Your task to perform on an android device: turn on showing notifications on the lock screen Image 0: 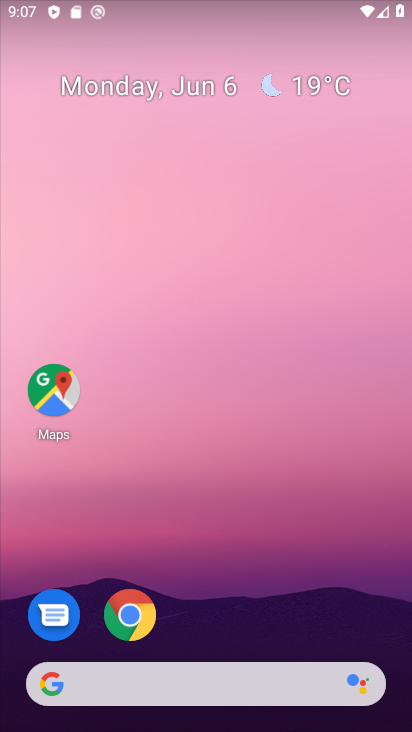
Step 0: drag from (290, 614) to (229, 267)
Your task to perform on an android device: turn on showing notifications on the lock screen Image 1: 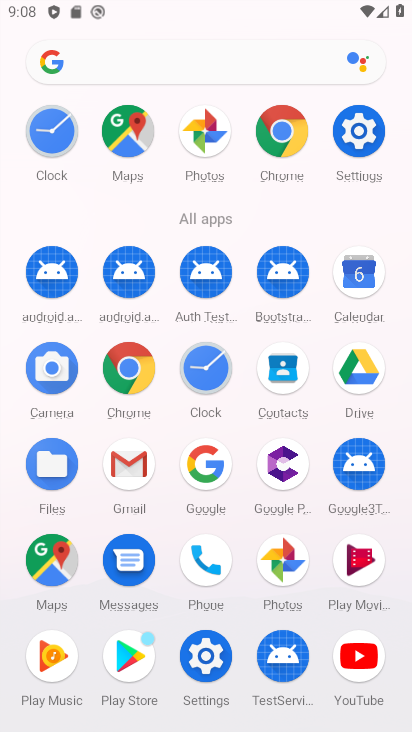
Step 1: click (354, 152)
Your task to perform on an android device: turn on showing notifications on the lock screen Image 2: 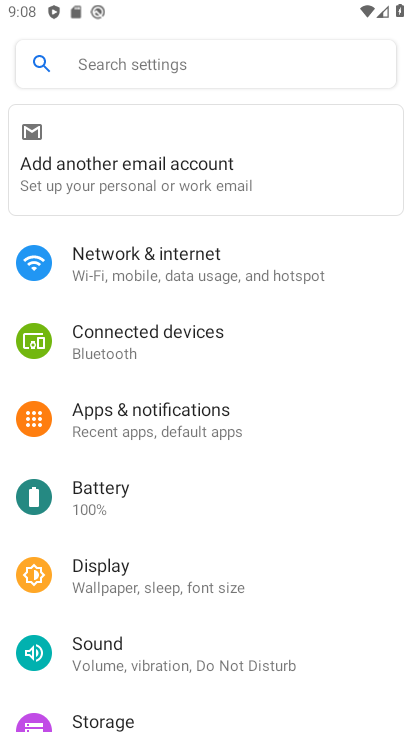
Step 2: task complete